Your task to perform on an android device: open a bookmark in the chrome app Image 0: 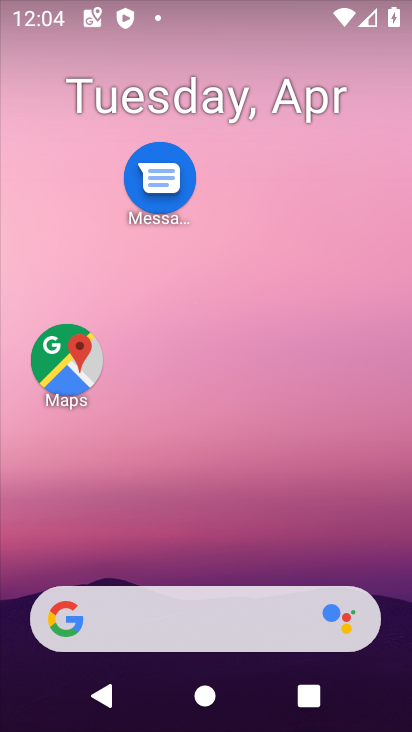
Step 0: drag from (203, 650) to (167, 60)
Your task to perform on an android device: open a bookmark in the chrome app Image 1: 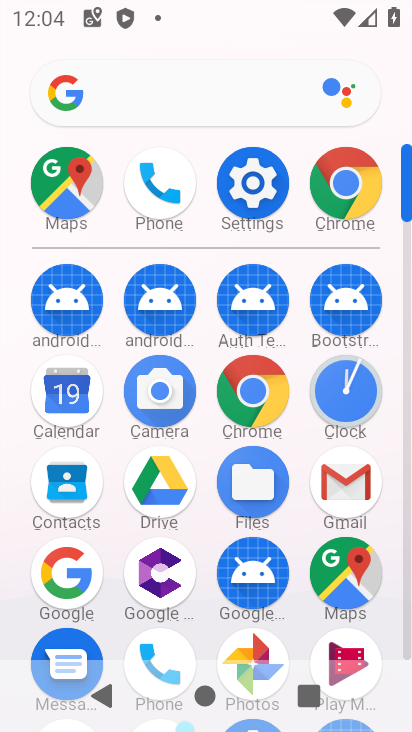
Step 1: click (347, 180)
Your task to perform on an android device: open a bookmark in the chrome app Image 2: 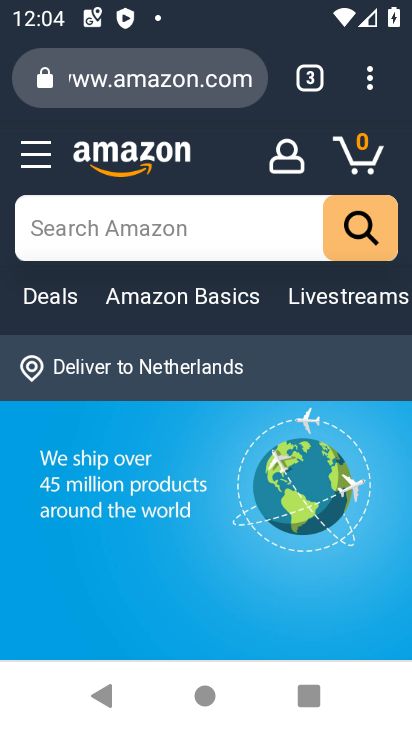
Step 2: click (371, 72)
Your task to perform on an android device: open a bookmark in the chrome app Image 3: 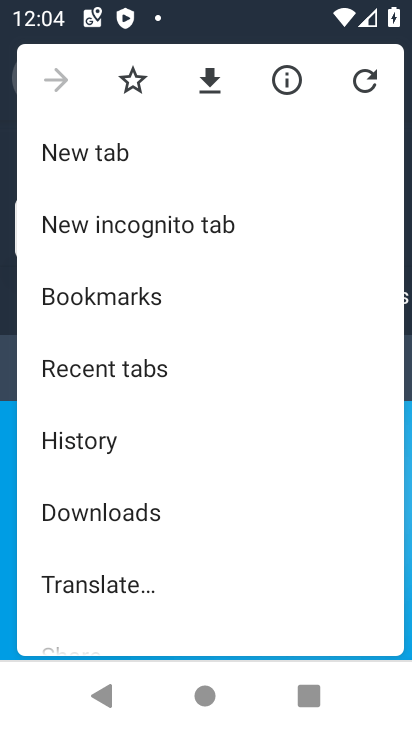
Step 3: click (122, 293)
Your task to perform on an android device: open a bookmark in the chrome app Image 4: 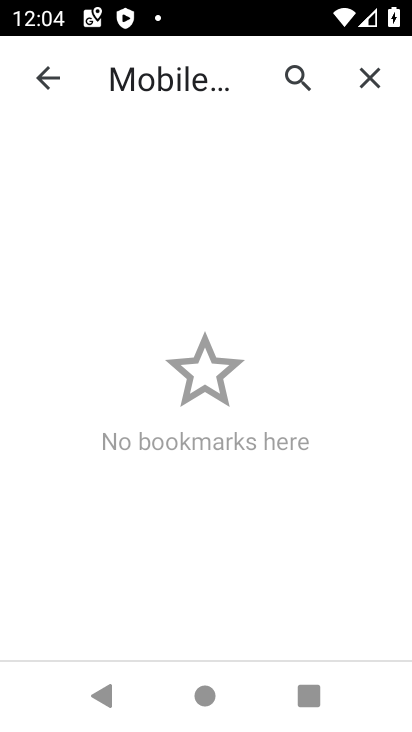
Step 4: task complete